Your task to perform on an android device: open app "NewsBreak: Local News & Alerts" (install if not already installed), go to login, and select forgot password Image 0: 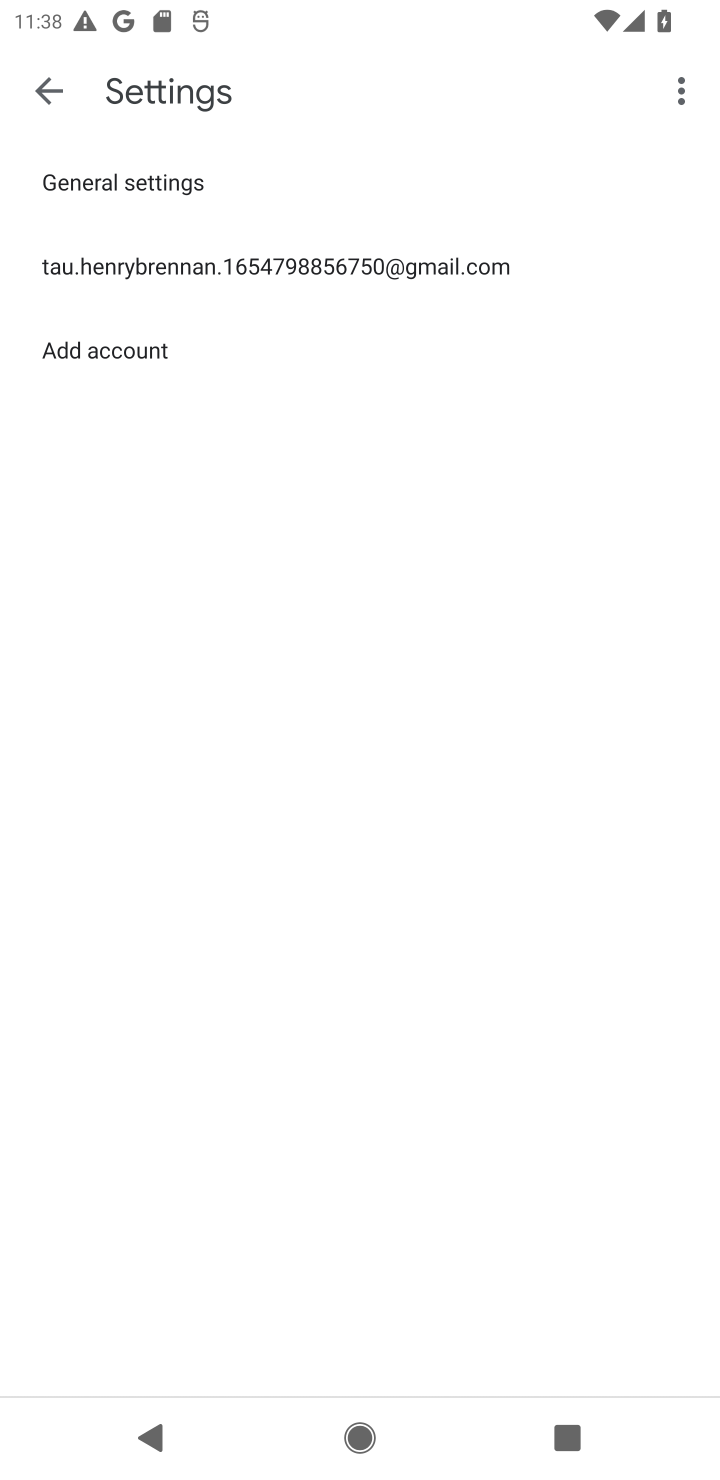
Step 0: press home button
Your task to perform on an android device: open app "NewsBreak: Local News & Alerts" (install if not already installed), go to login, and select forgot password Image 1: 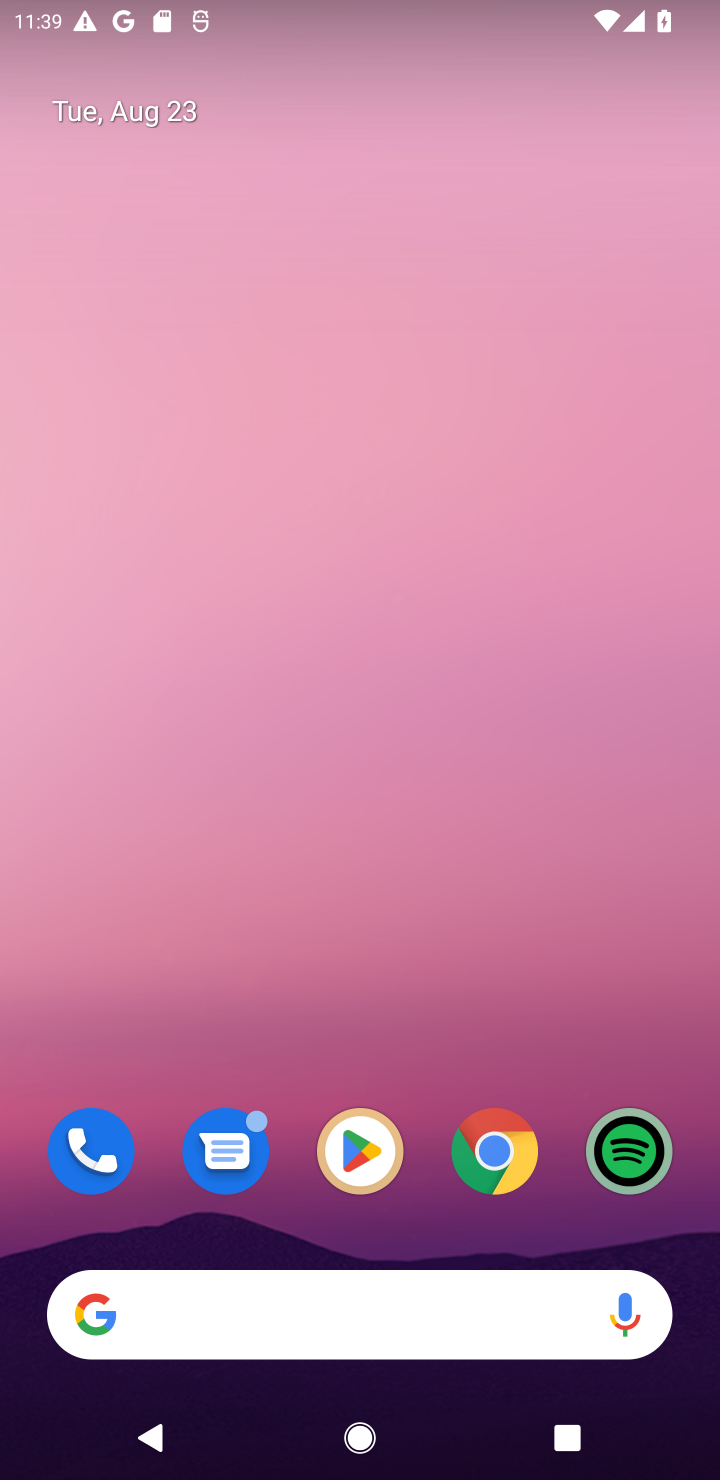
Step 1: click (348, 1113)
Your task to perform on an android device: open app "NewsBreak: Local News & Alerts" (install if not already installed), go to login, and select forgot password Image 2: 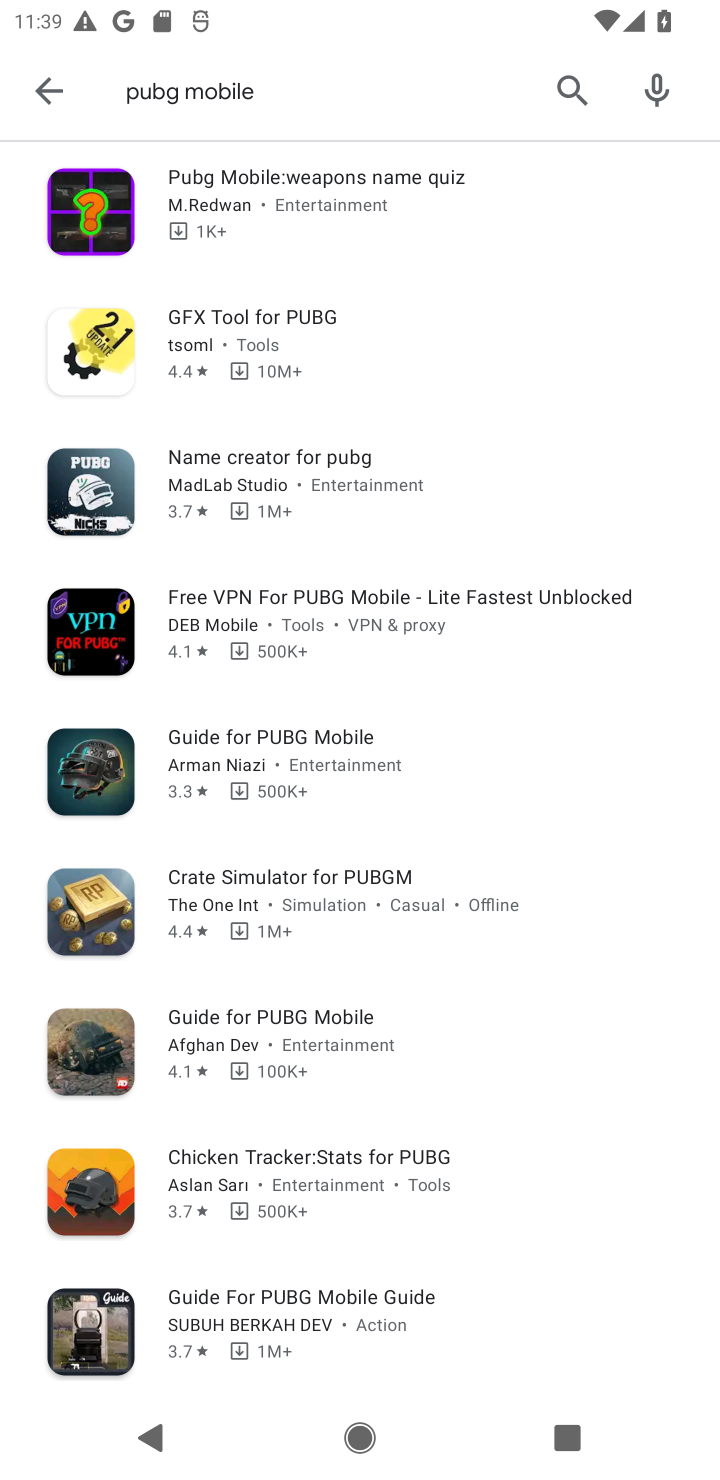
Step 2: click (567, 65)
Your task to perform on an android device: open app "NewsBreak: Local News & Alerts" (install if not already installed), go to login, and select forgot password Image 3: 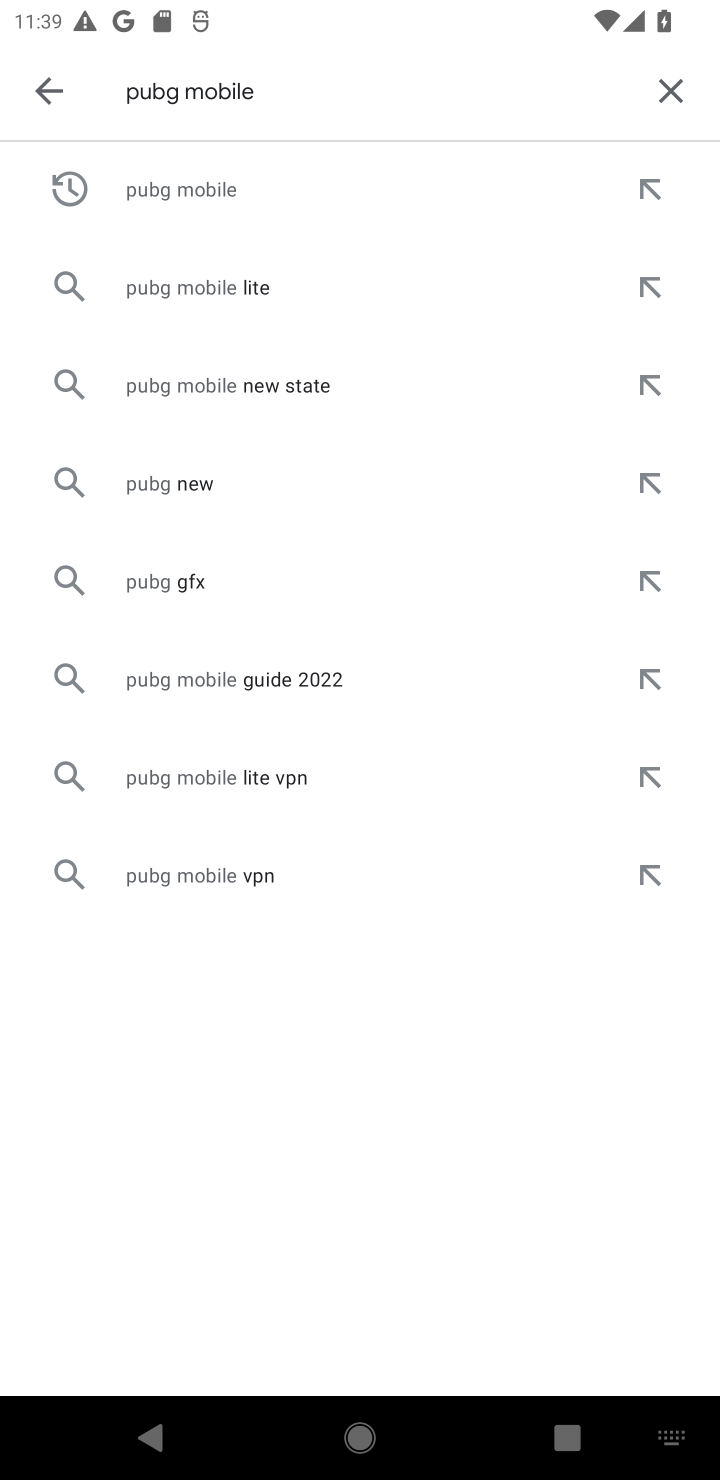
Step 3: click (673, 98)
Your task to perform on an android device: open app "NewsBreak: Local News & Alerts" (install if not already installed), go to login, and select forgot password Image 4: 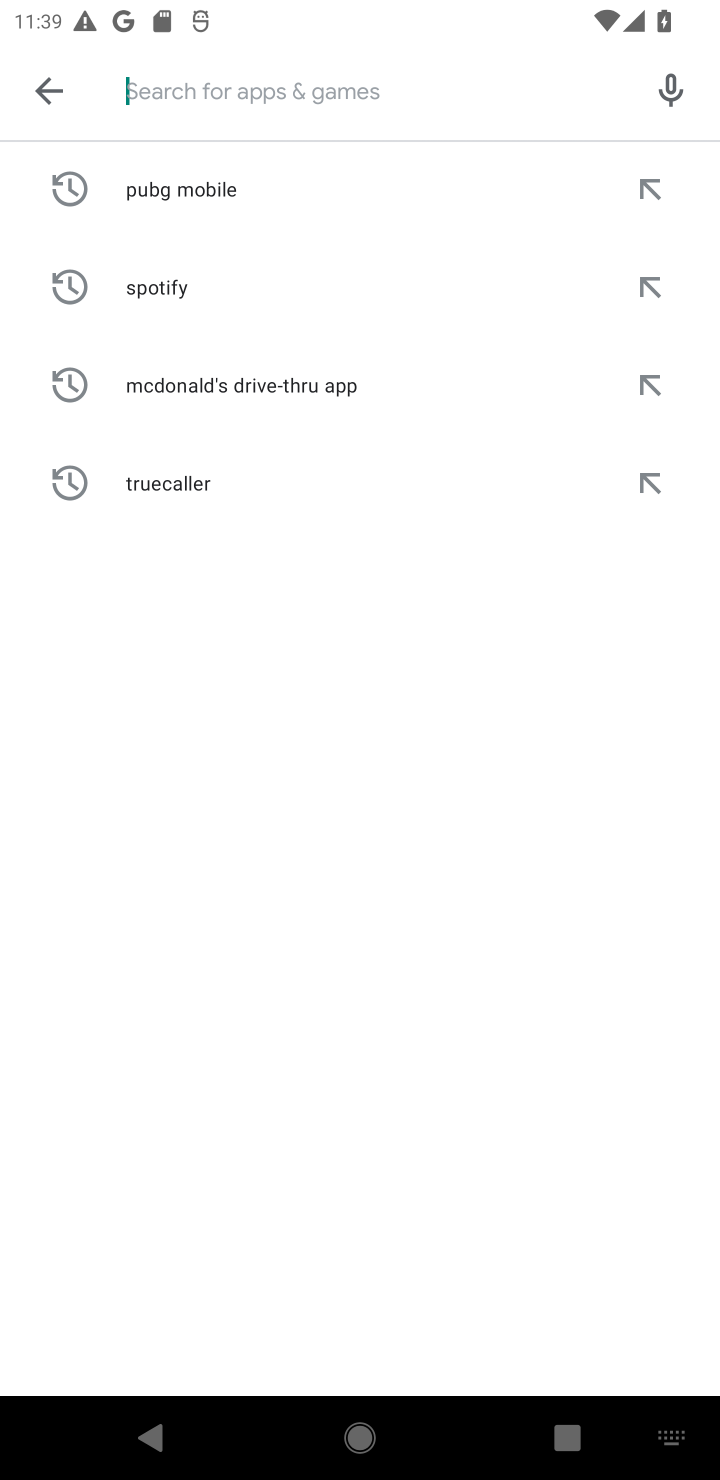
Step 4: type "NewsBreak: Local News & Alerts"
Your task to perform on an android device: open app "NewsBreak: Local News & Alerts" (install if not already installed), go to login, and select forgot password Image 5: 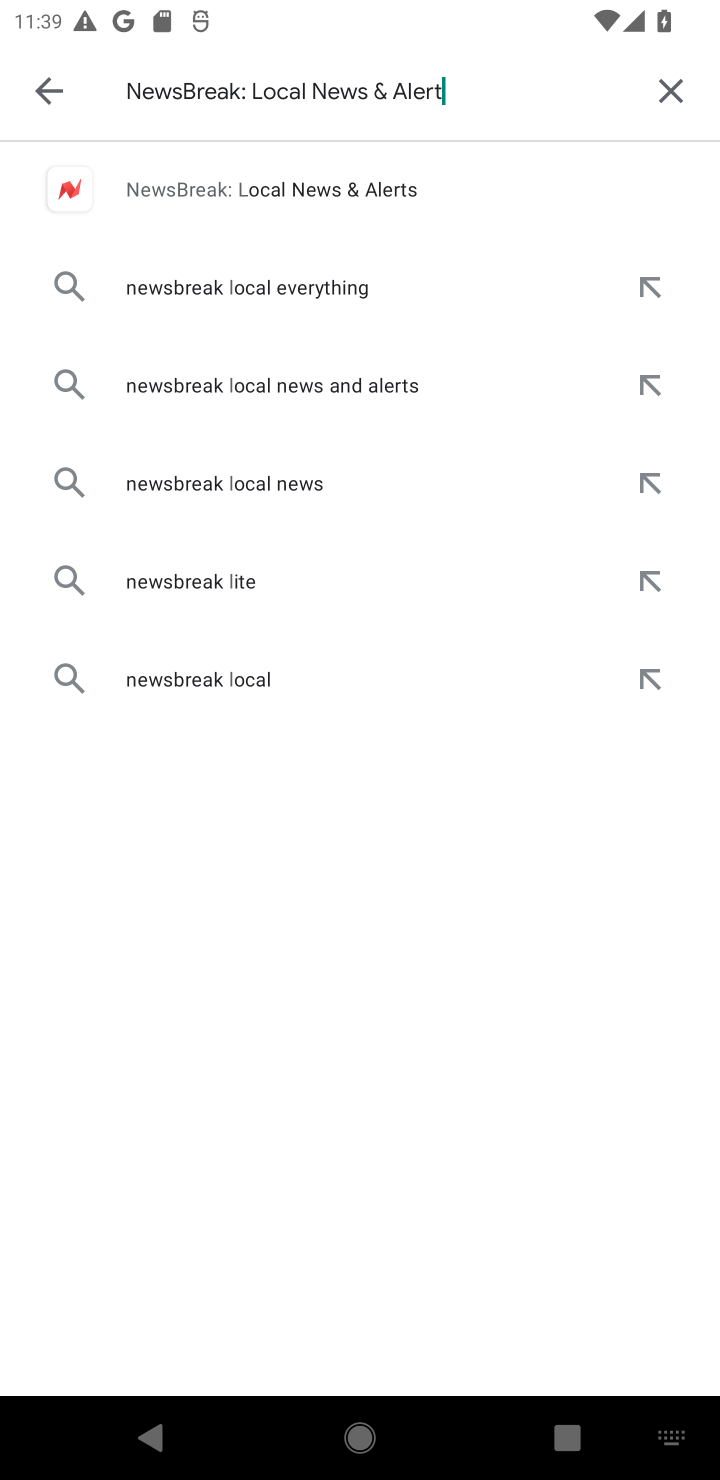
Step 5: type ""
Your task to perform on an android device: open app "NewsBreak: Local News & Alerts" (install if not already installed), go to login, and select forgot password Image 6: 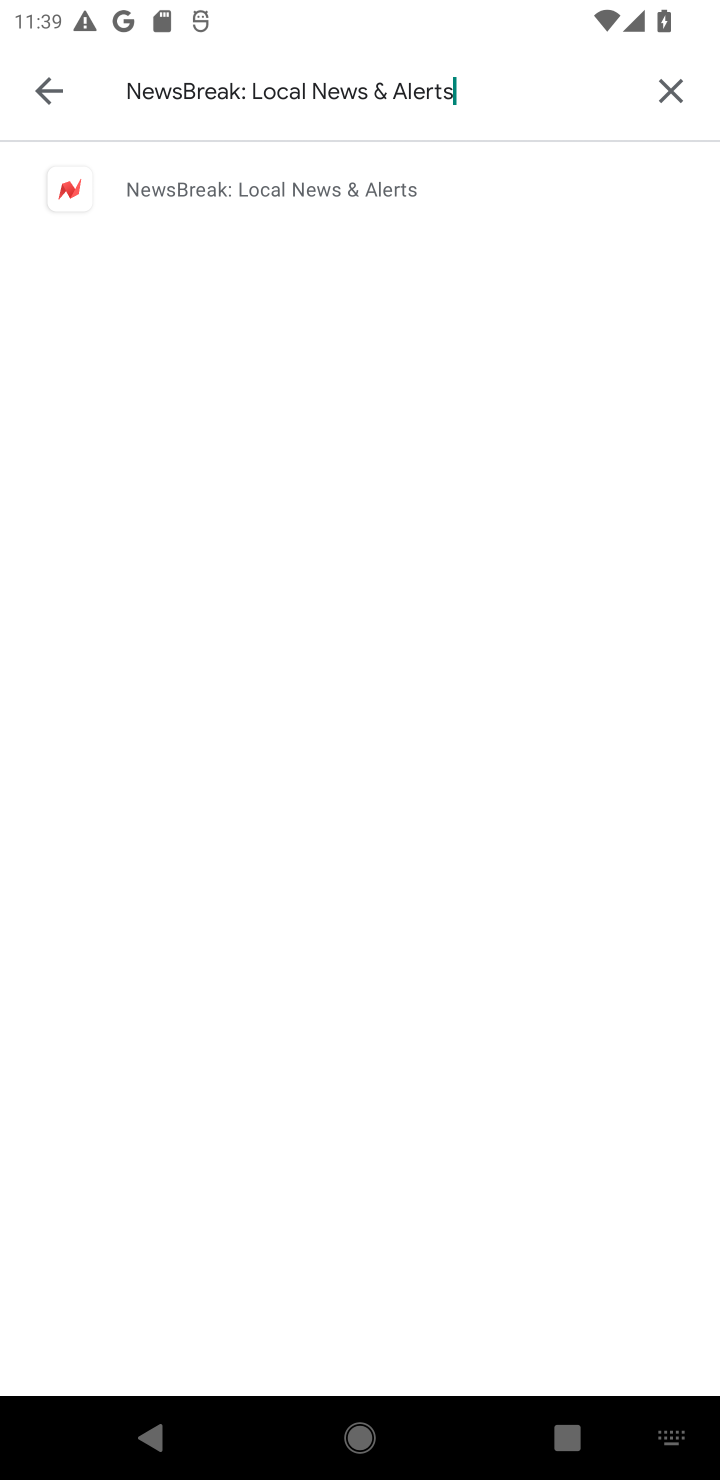
Step 6: click (135, 185)
Your task to perform on an android device: open app "NewsBreak: Local News & Alerts" (install if not already installed), go to login, and select forgot password Image 7: 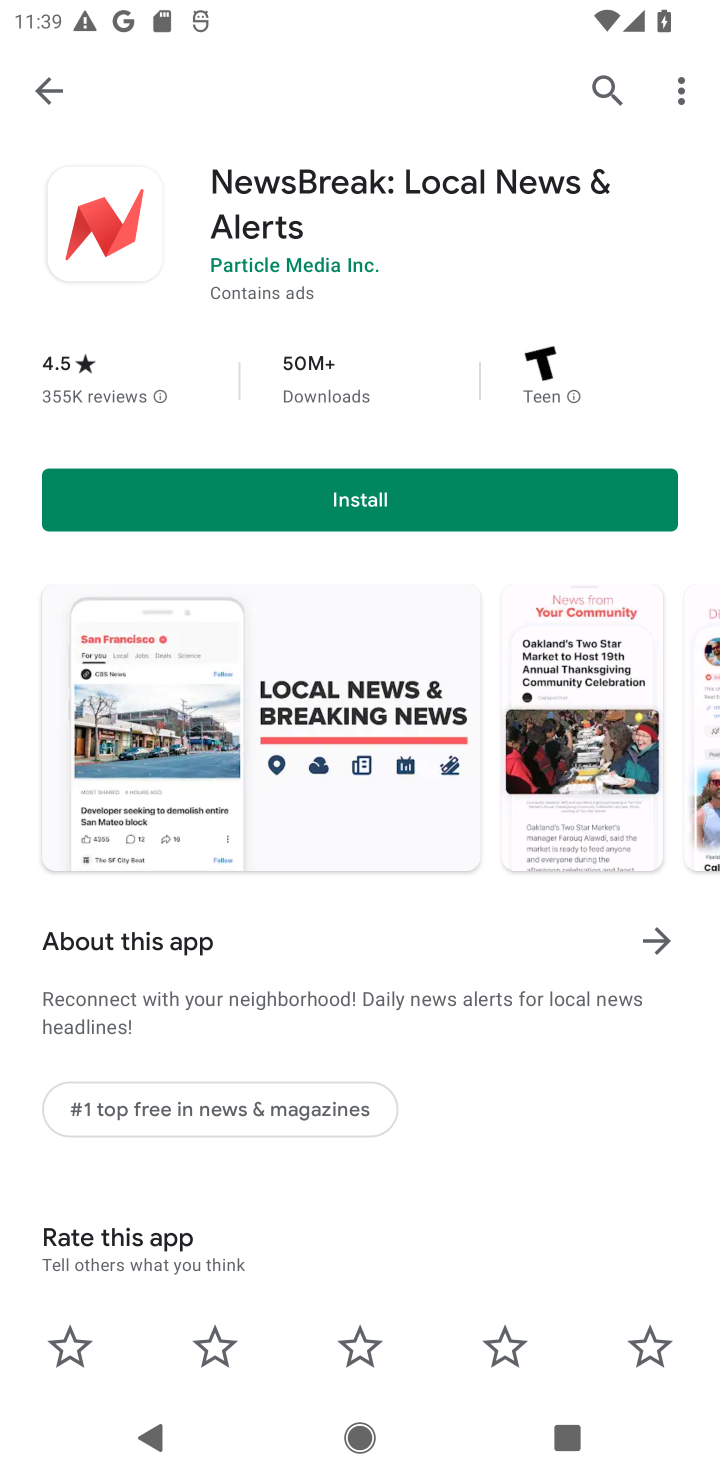
Step 7: click (437, 502)
Your task to perform on an android device: open app "NewsBreak: Local News & Alerts" (install if not already installed), go to login, and select forgot password Image 8: 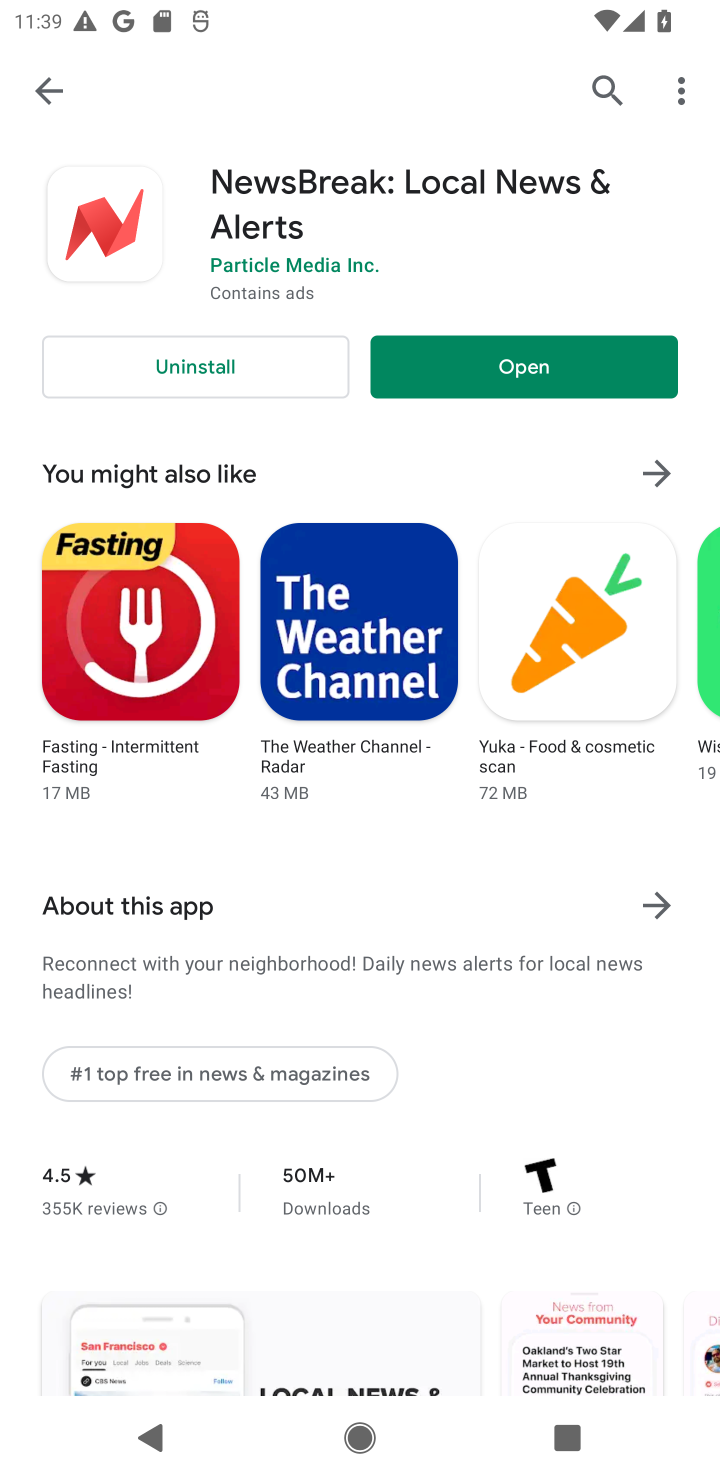
Step 8: click (499, 362)
Your task to perform on an android device: open app "NewsBreak: Local News & Alerts" (install if not already installed), go to login, and select forgot password Image 9: 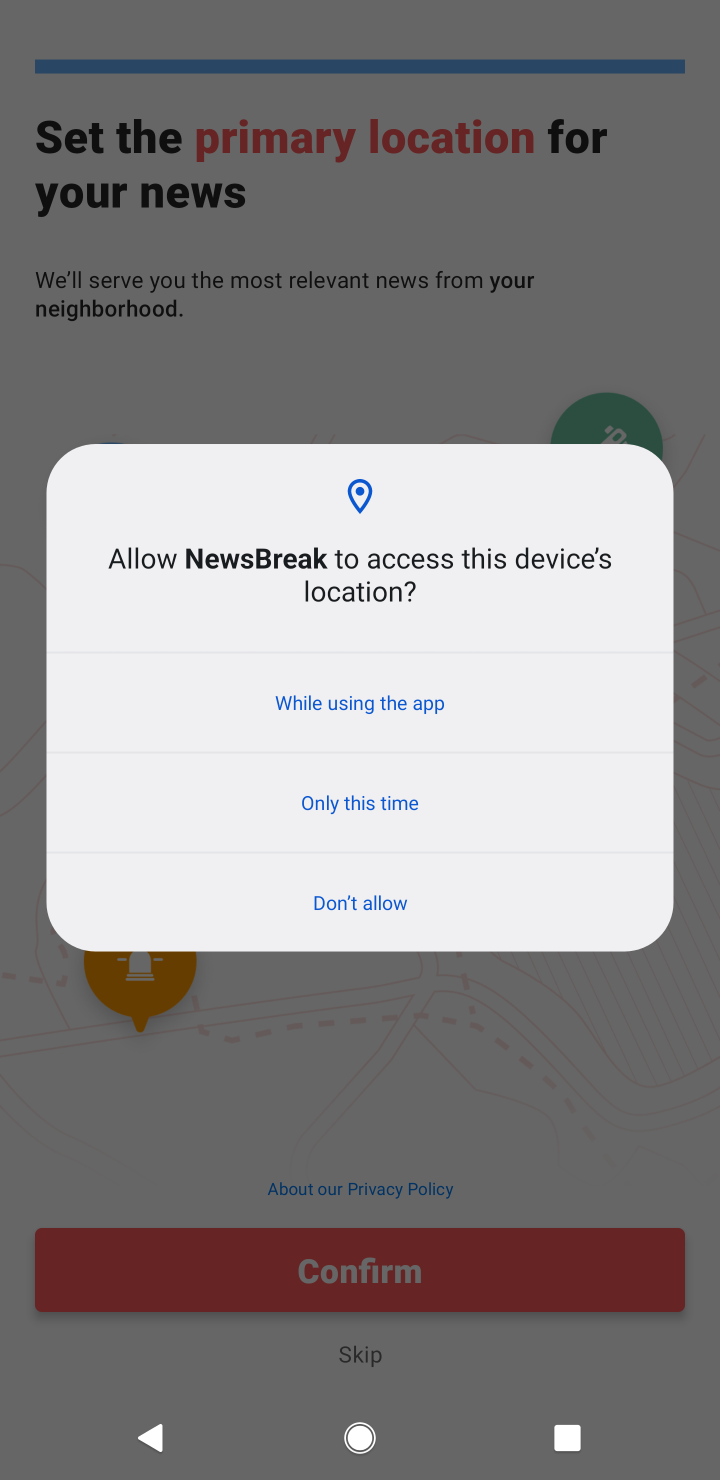
Step 9: task complete